Your task to perform on an android device: Open calendar and show me the fourth week of next month Image 0: 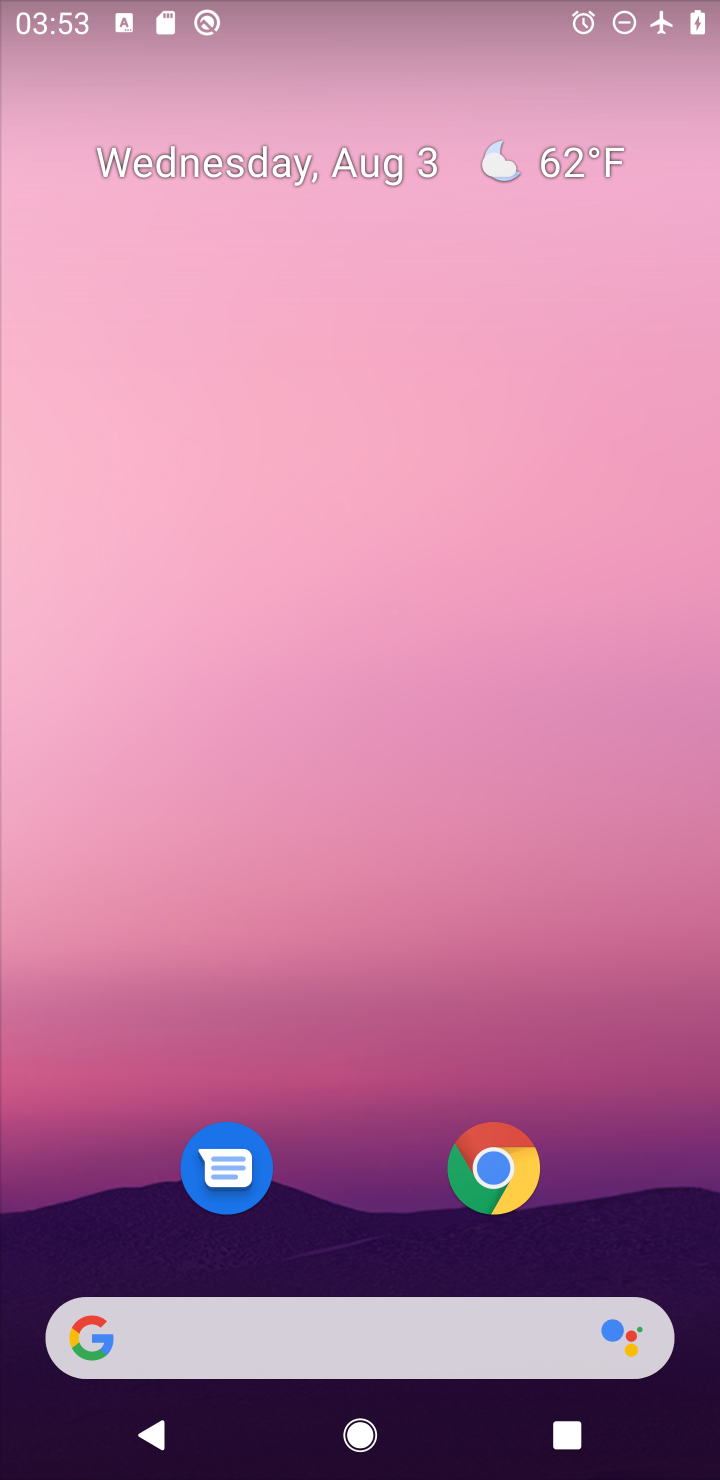
Step 0: drag from (663, 1248) to (565, 104)
Your task to perform on an android device: Open calendar and show me the fourth week of next month Image 1: 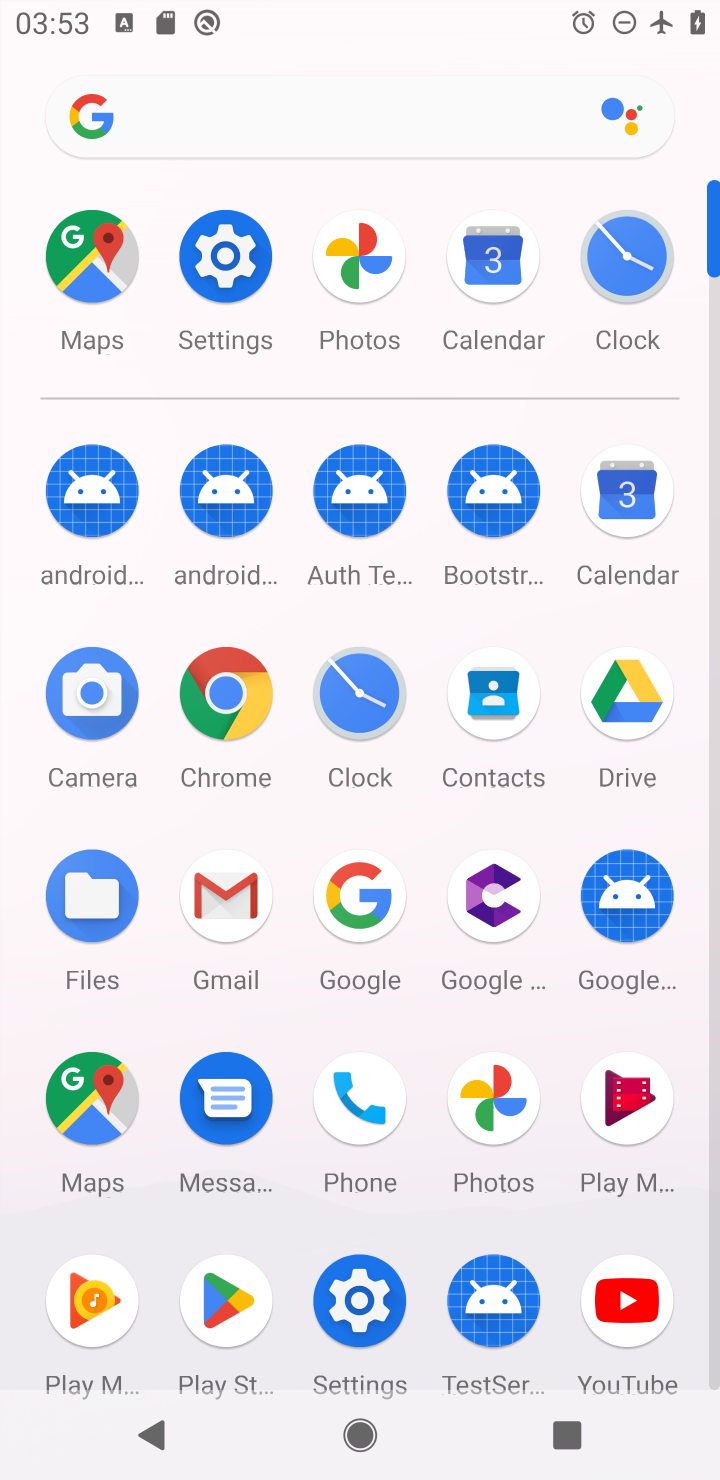
Step 1: click (628, 499)
Your task to perform on an android device: Open calendar and show me the fourth week of next month Image 2: 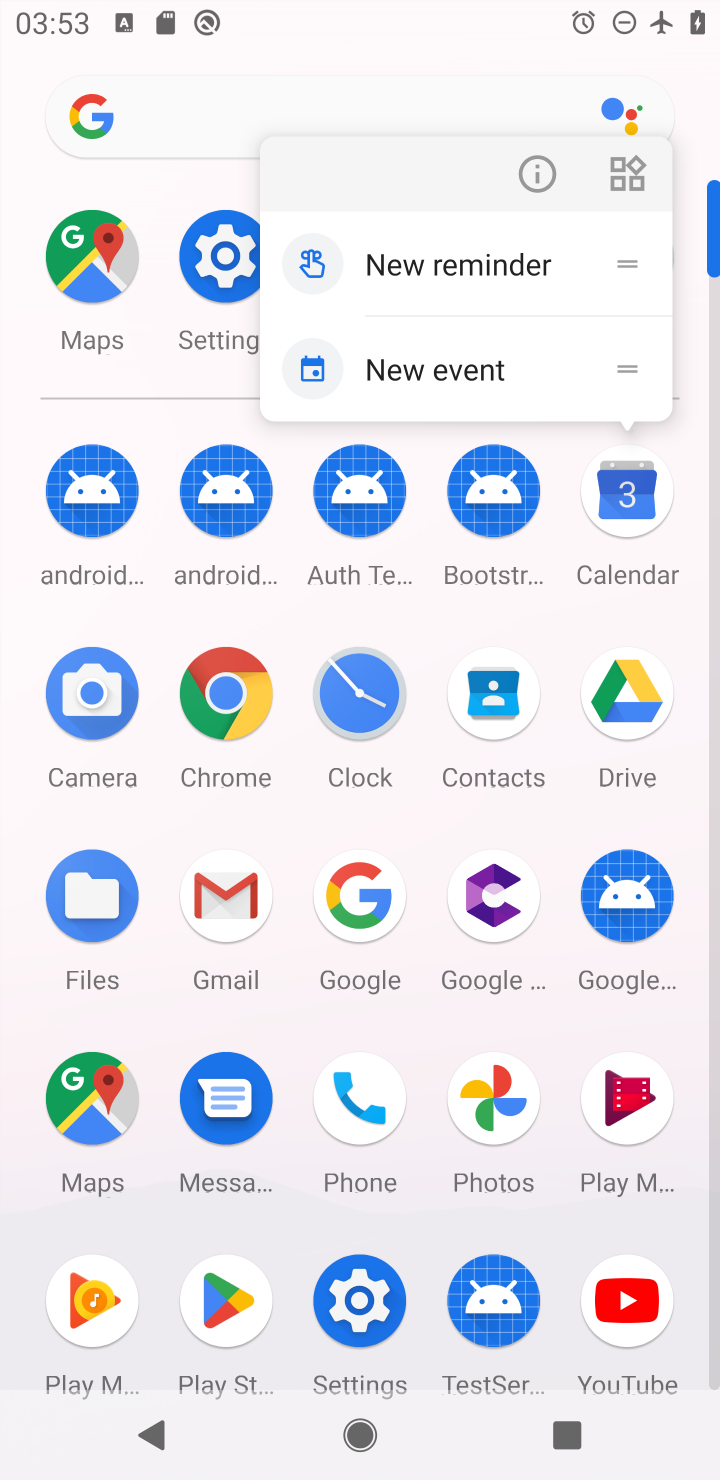
Step 2: click (628, 499)
Your task to perform on an android device: Open calendar and show me the fourth week of next month Image 3: 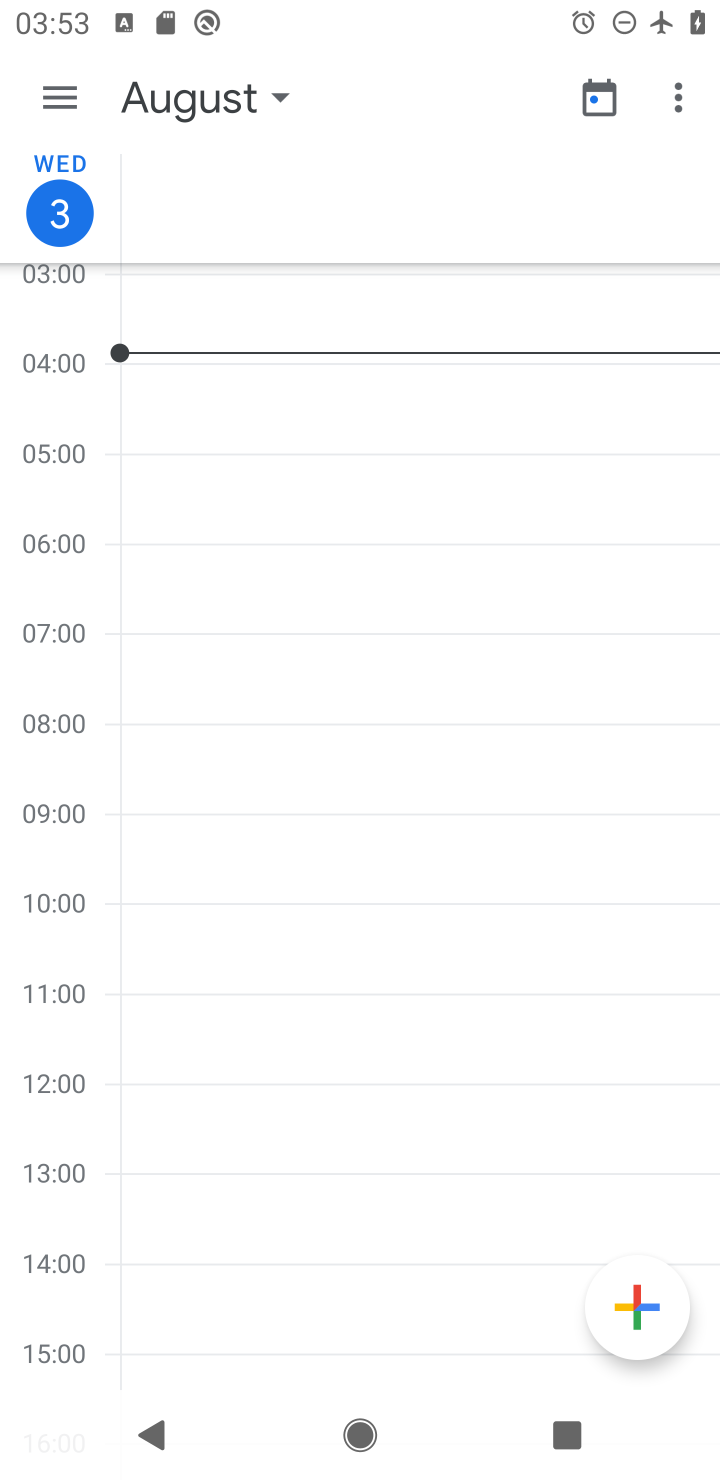
Step 3: click (54, 87)
Your task to perform on an android device: Open calendar and show me the fourth week of next month Image 4: 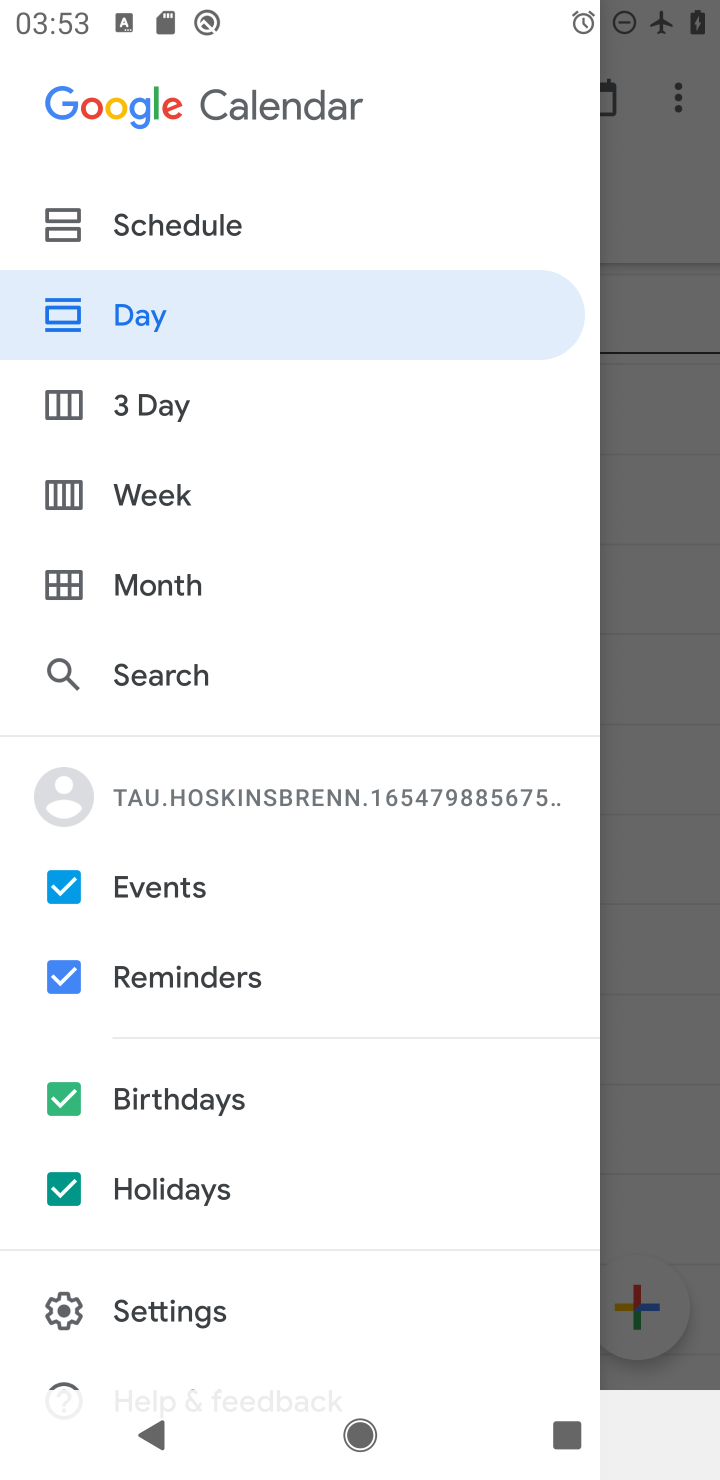
Step 4: click (155, 497)
Your task to perform on an android device: Open calendar and show me the fourth week of next month Image 5: 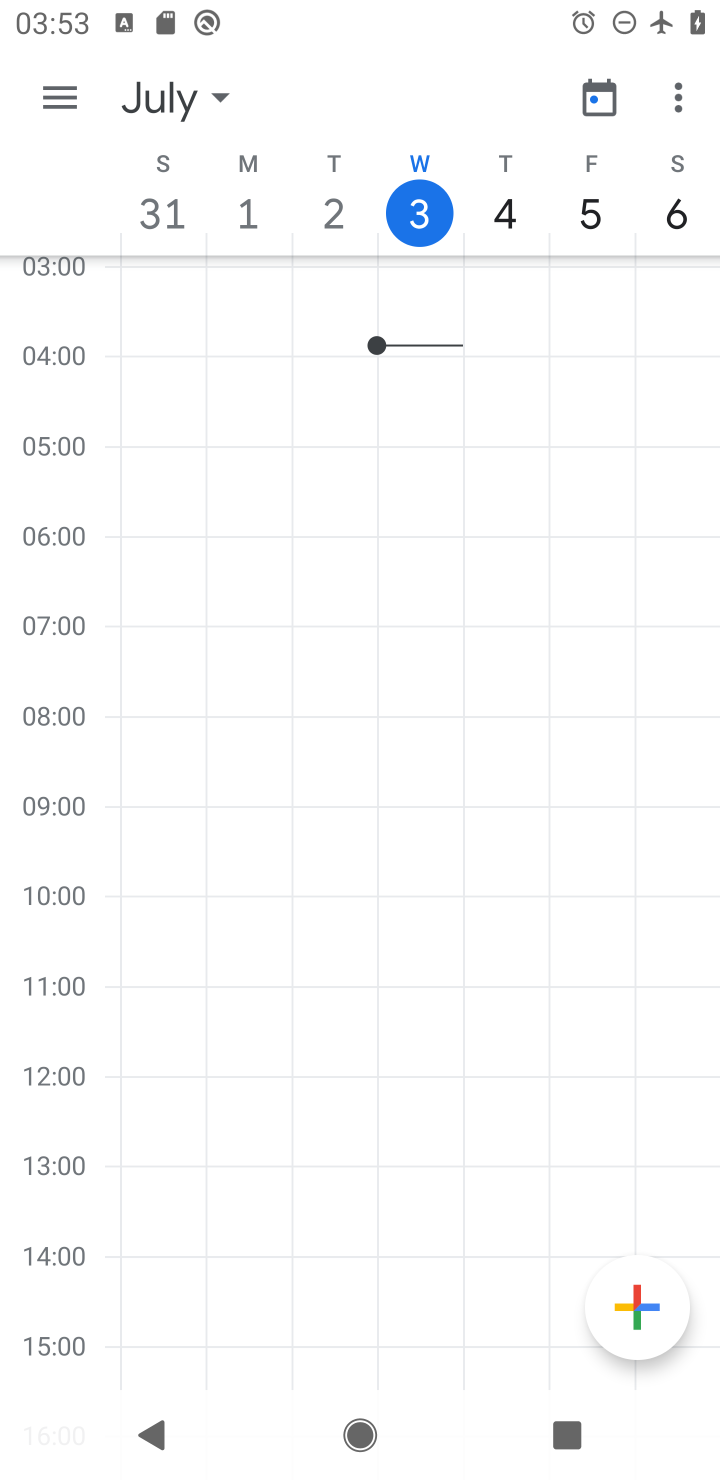
Step 5: click (207, 93)
Your task to perform on an android device: Open calendar and show me the fourth week of next month Image 6: 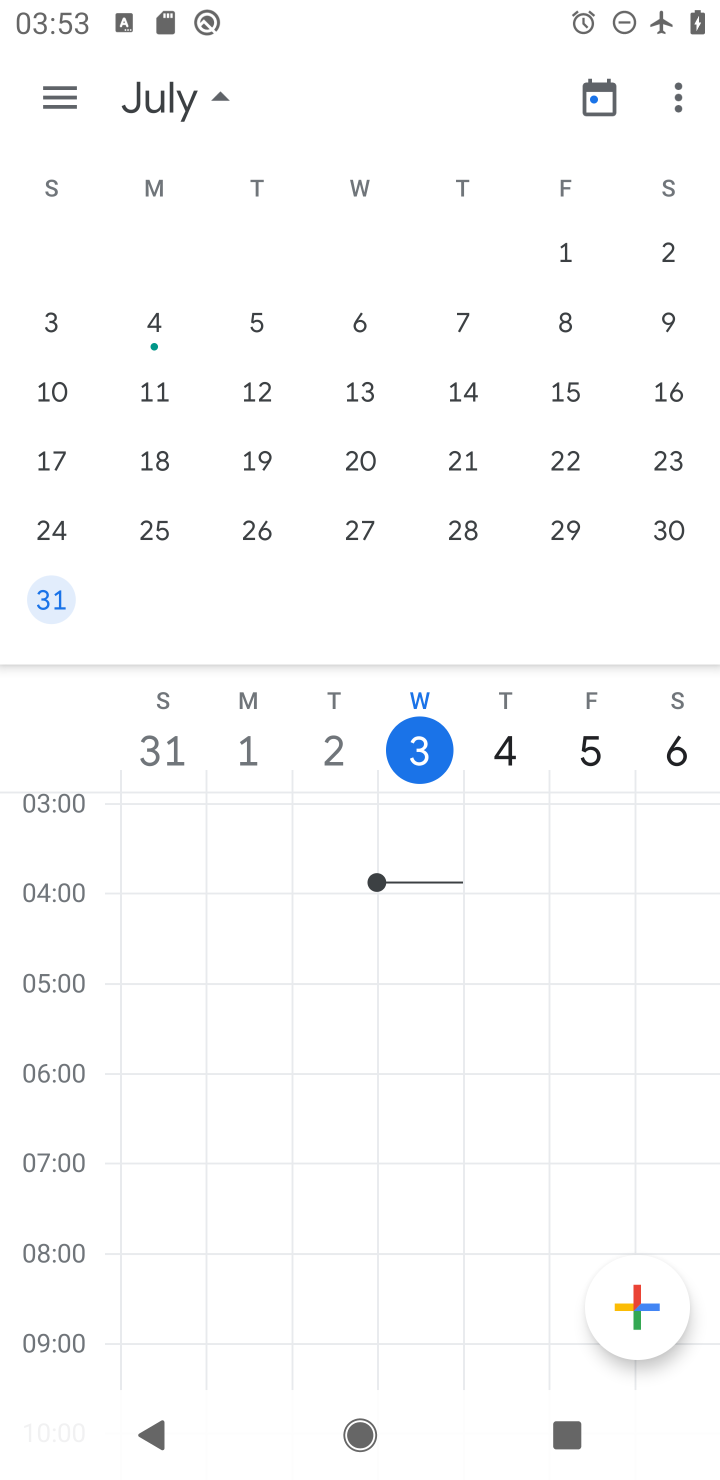
Step 6: drag from (666, 476) to (80, 463)
Your task to perform on an android device: Open calendar and show me the fourth week of next month Image 7: 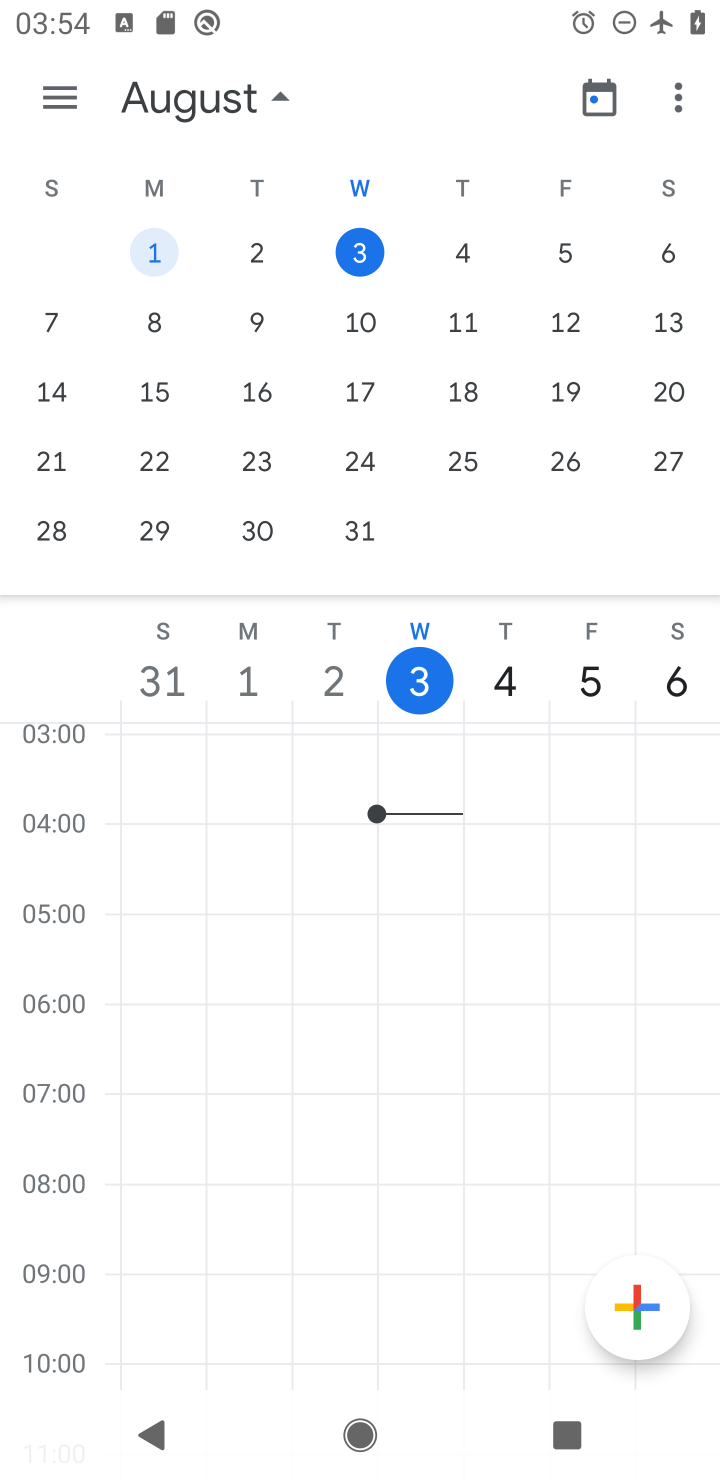
Step 7: drag from (669, 430) to (8, 433)
Your task to perform on an android device: Open calendar and show me the fourth week of next month Image 8: 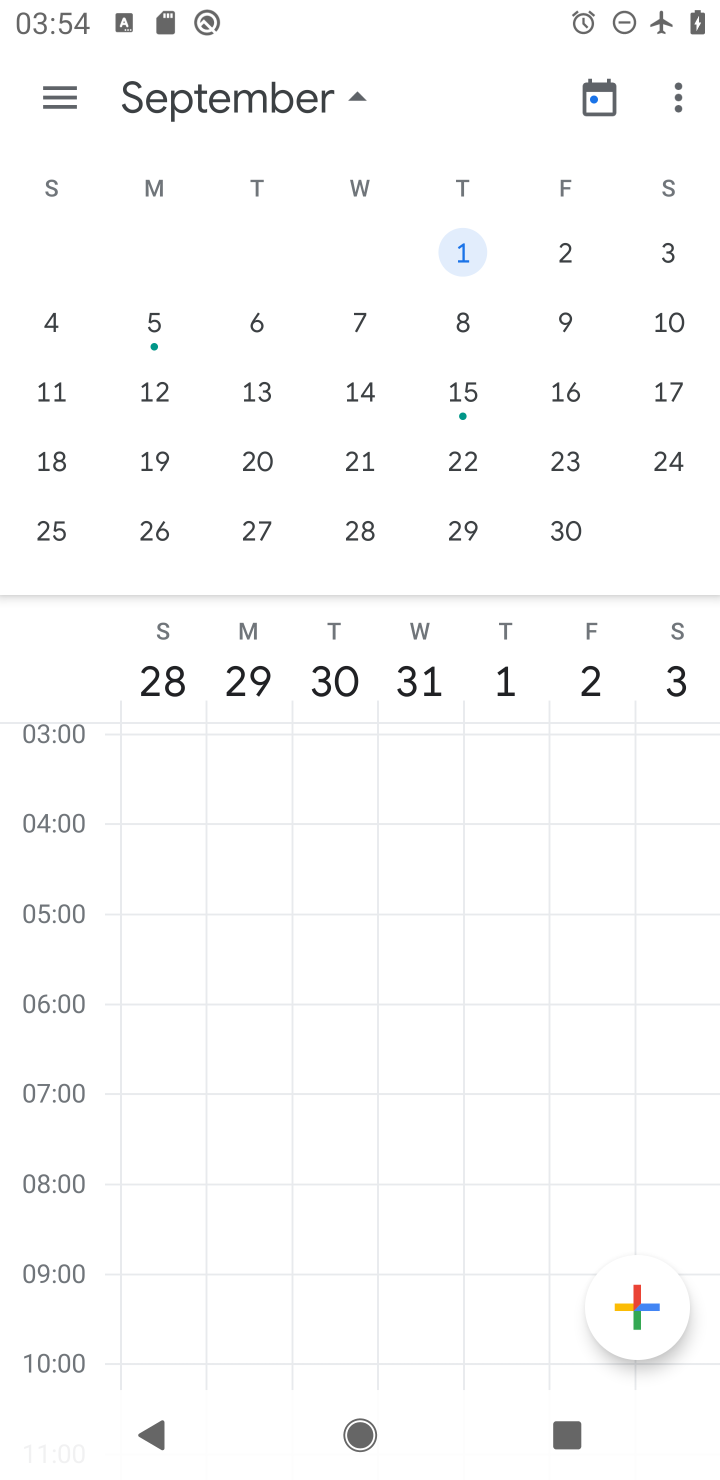
Step 8: click (41, 531)
Your task to perform on an android device: Open calendar and show me the fourth week of next month Image 9: 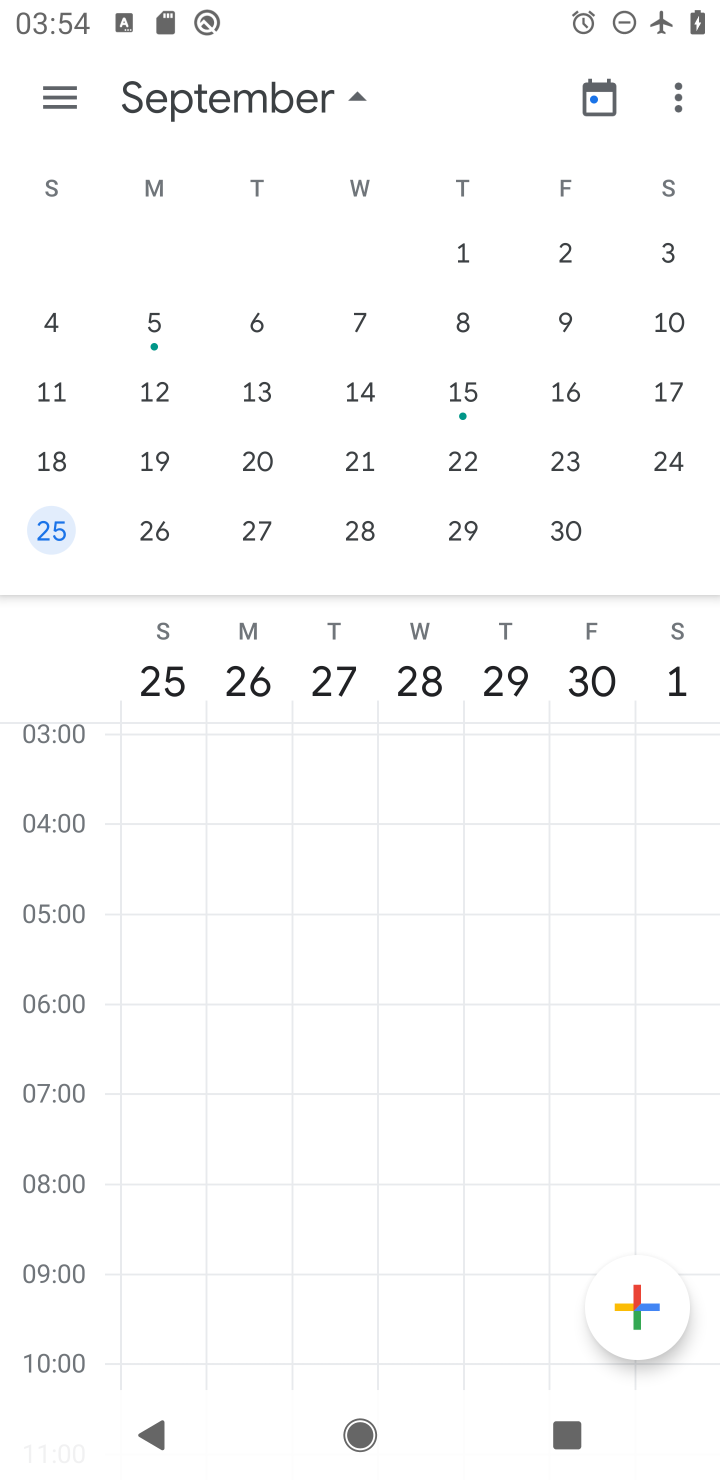
Step 9: task complete